Your task to perform on an android device: Go to Yahoo.com Image 0: 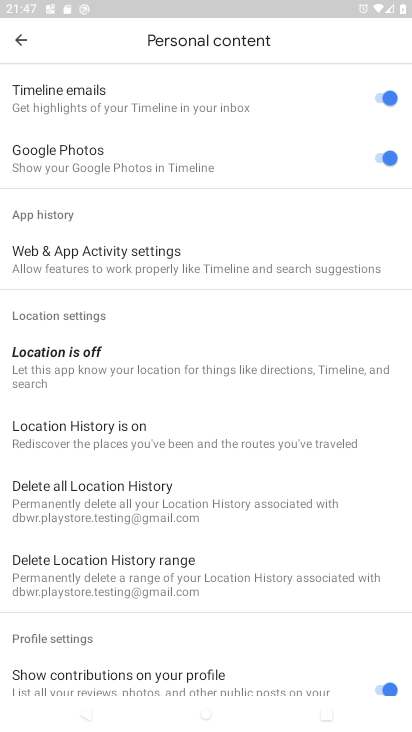
Step 0: press back button
Your task to perform on an android device: Go to Yahoo.com Image 1: 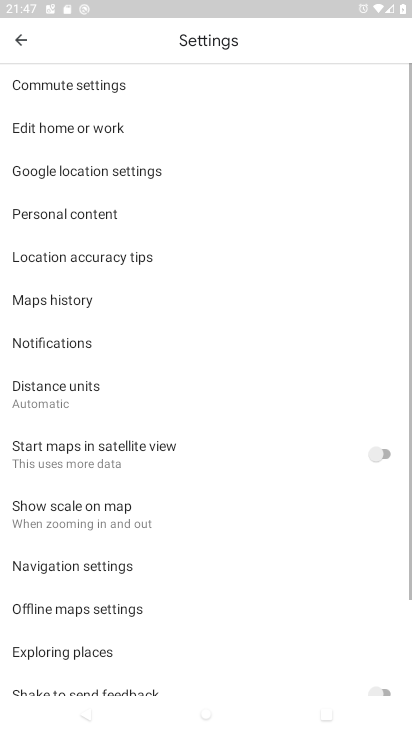
Step 1: press back button
Your task to perform on an android device: Go to Yahoo.com Image 2: 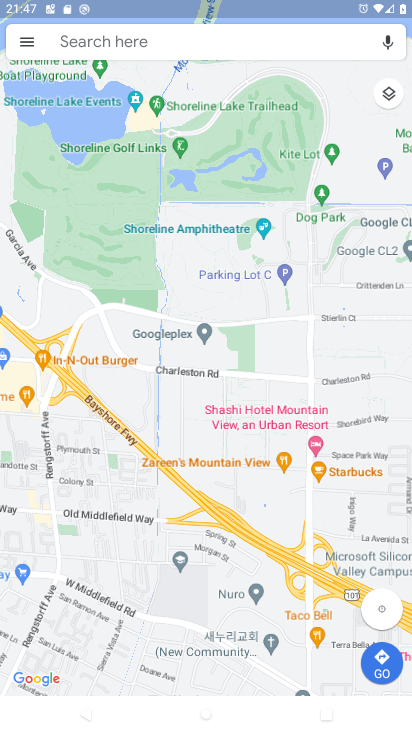
Step 2: press back button
Your task to perform on an android device: Go to Yahoo.com Image 3: 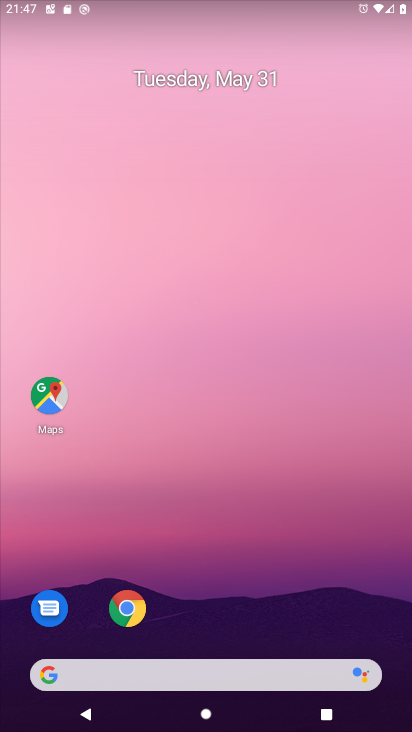
Step 3: click (129, 610)
Your task to perform on an android device: Go to Yahoo.com Image 4: 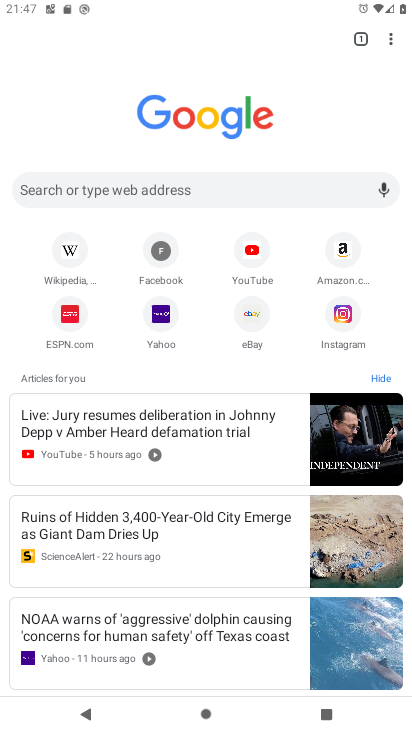
Step 4: click (228, 185)
Your task to perform on an android device: Go to Yahoo.com Image 5: 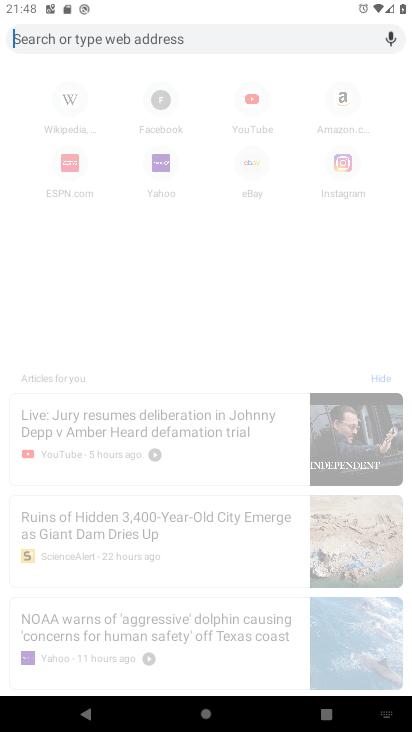
Step 5: type "Yahoo.com"
Your task to perform on an android device: Go to Yahoo.com Image 6: 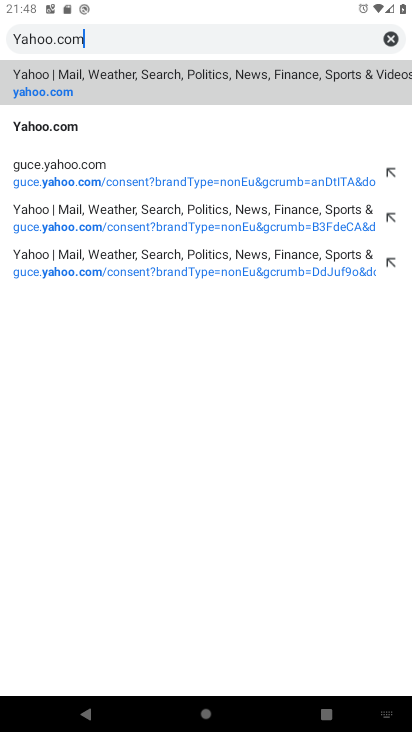
Step 6: click (77, 129)
Your task to perform on an android device: Go to Yahoo.com Image 7: 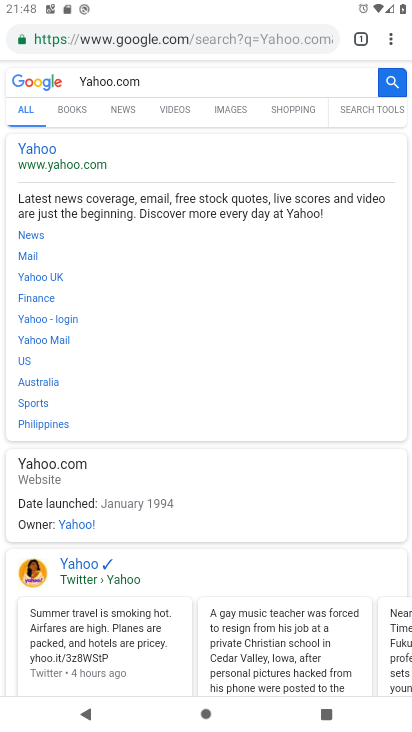
Step 7: click (73, 161)
Your task to perform on an android device: Go to Yahoo.com Image 8: 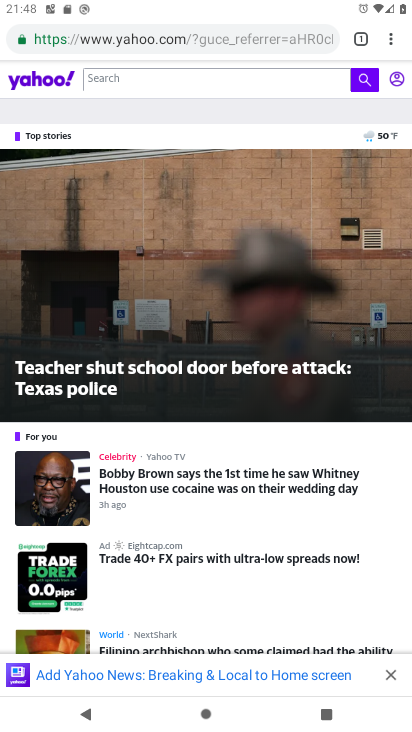
Step 8: task complete